Your task to perform on an android device: toggle notifications settings in the gmail app Image 0: 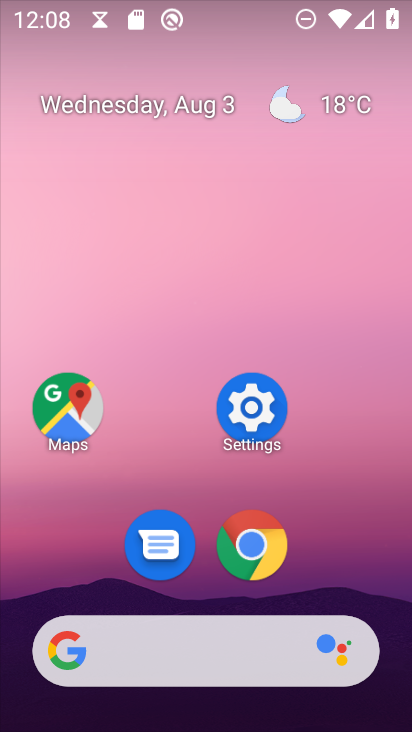
Step 0: drag from (242, 612) to (342, 103)
Your task to perform on an android device: toggle notifications settings in the gmail app Image 1: 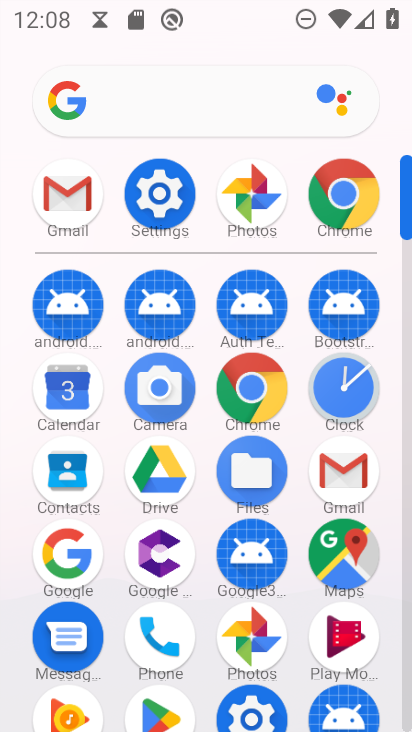
Step 1: click (72, 200)
Your task to perform on an android device: toggle notifications settings in the gmail app Image 2: 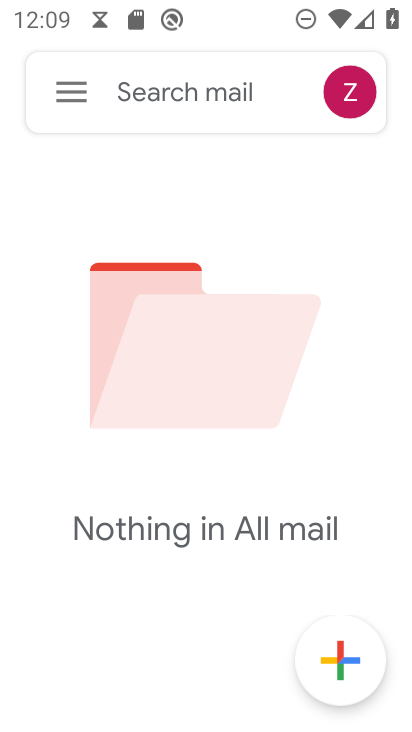
Step 2: click (73, 97)
Your task to perform on an android device: toggle notifications settings in the gmail app Image 3: 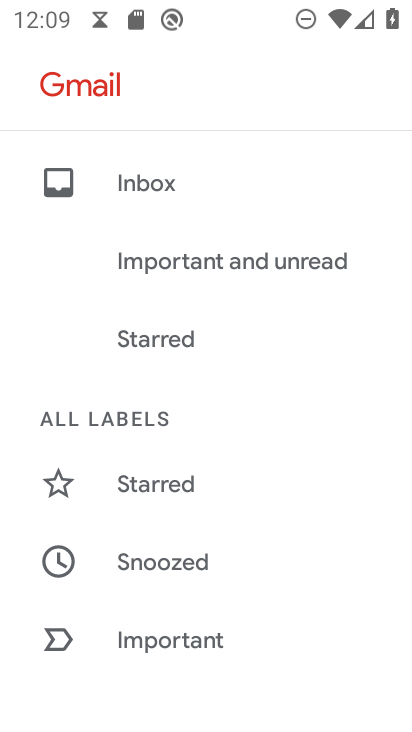
Step 3: drag from (294, 677) to (323, 266)
Your task to perform on an android device: toggle notifications settings in the gmail app Image 4: 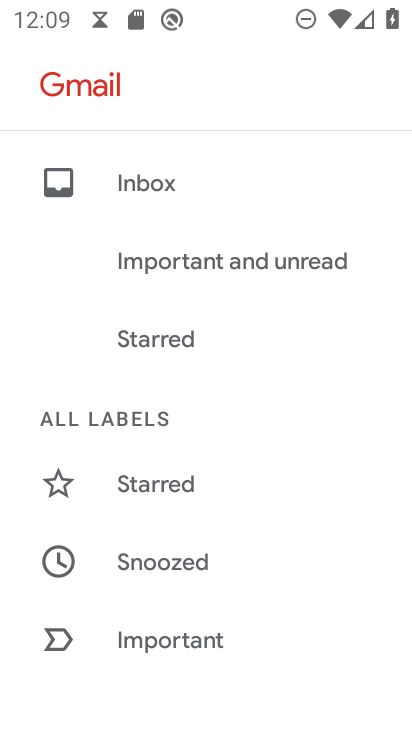
Step 4: drag from (265, 603) to (278, 171)
Your task to perform on an android device: toggle notifications settings in the gmail app Image 5: 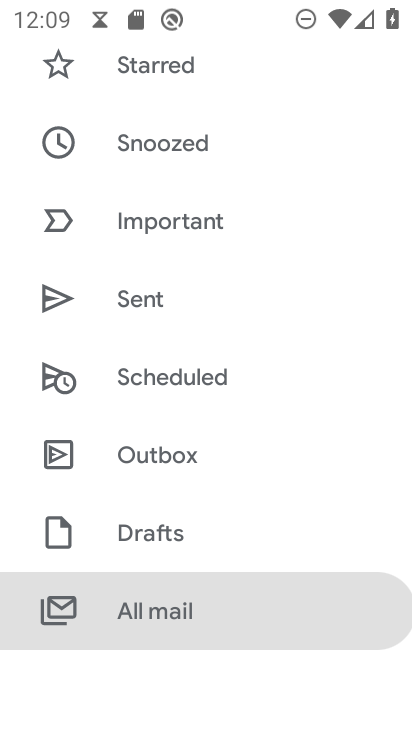
Step 5: drag from (258, 529) to (307, 74)
Your task to perform on an android device: toggle notifications settings in the gmail app Image 6: 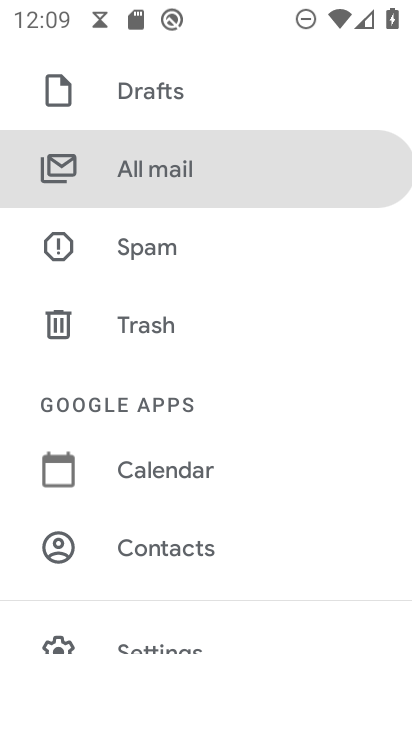
Step 6: drag from (265, 596) to (288, 211)
Your task to perform on an android device: toggle notifications settings in the gmail app Image 7: 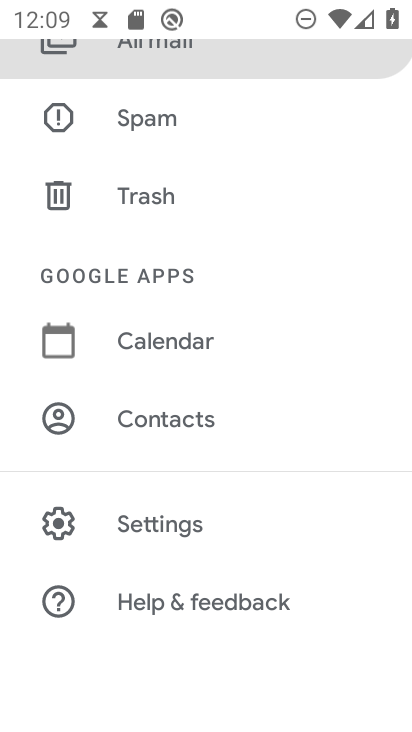
Step 7: click (175, 517)
Your task to perform on an android device: toggle notifications settings in the gmail app Image 8: 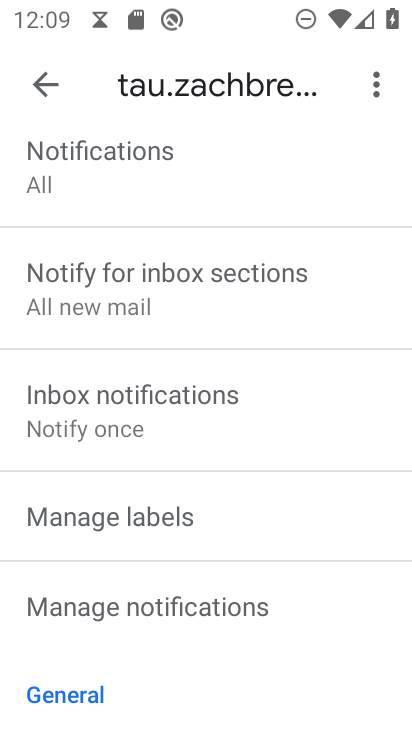
Step 8: drag from (229, 195) to (263, 532)
Your task to perform on an android device: toggle notifications settings in the gmail app Image 9: 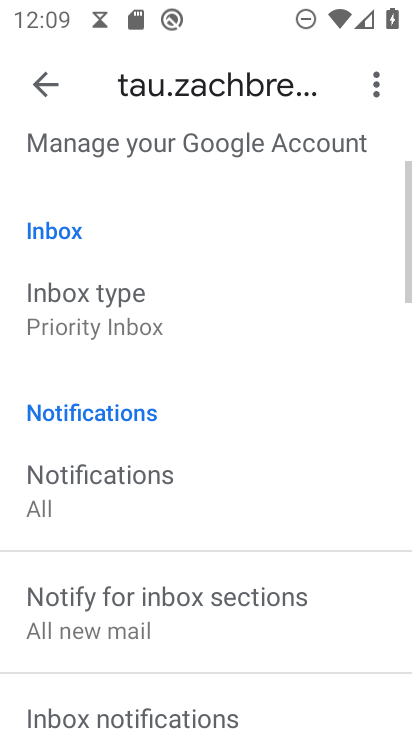
Step 9: click (104, 481)
Your task to perform on an android device: toggle notifications settings in the gmail app Image 10: 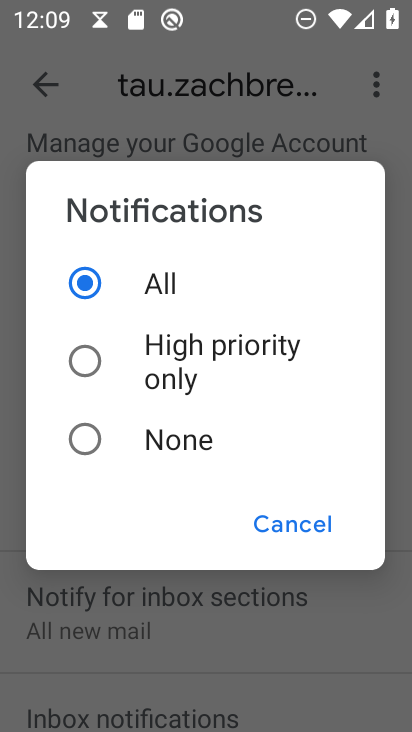
Step 10: click (82, 437)
Your task to perform on an android device: toggle notifications settings in the gmail app Image 11: 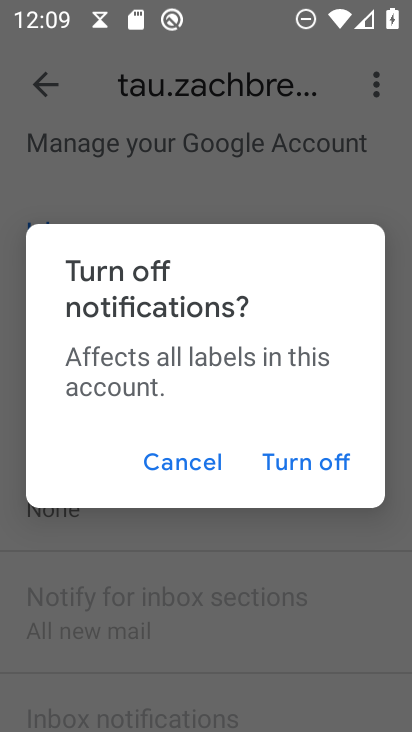
Step 11: click (299, 461)
Your task to perform on an android device: toggle notifications settings in the gmail app Image 12: 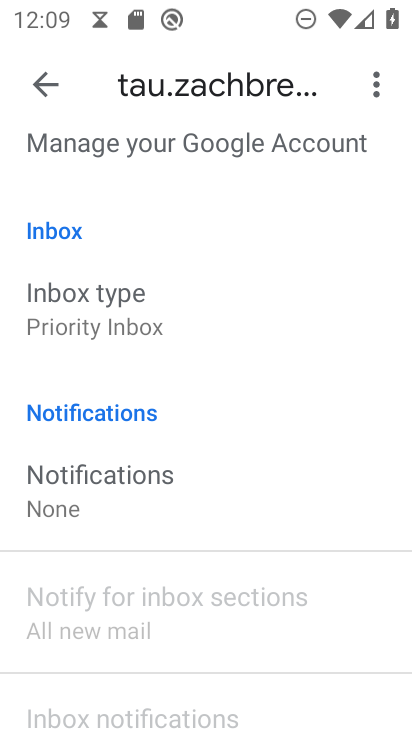
Step 12: task complete